Your task to perform on an android device: When is my next meeting? Image 0: 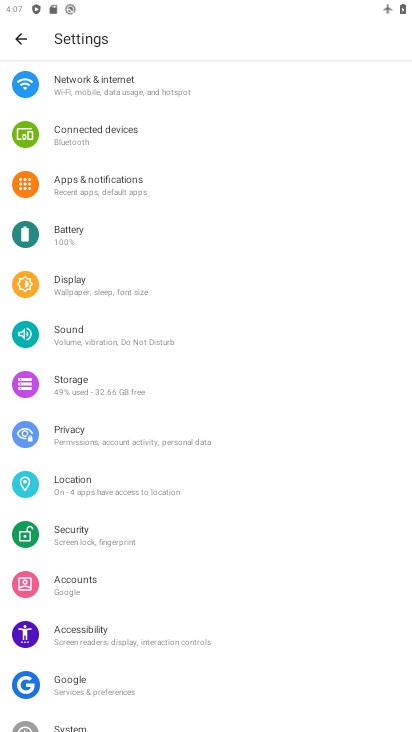
Step 0: press home button
Your task to perform on an android device: When is my next meeting? Image 1: 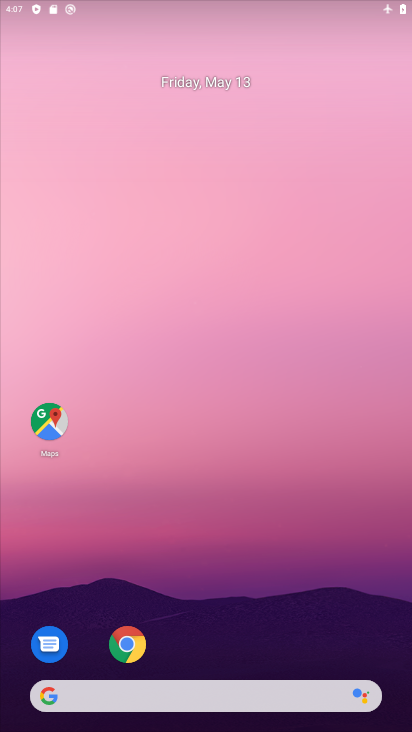
Step 1: drag from (210, 620) to (301, 121)
Your task to perform on an android device: When is my next meeting? Image 2: 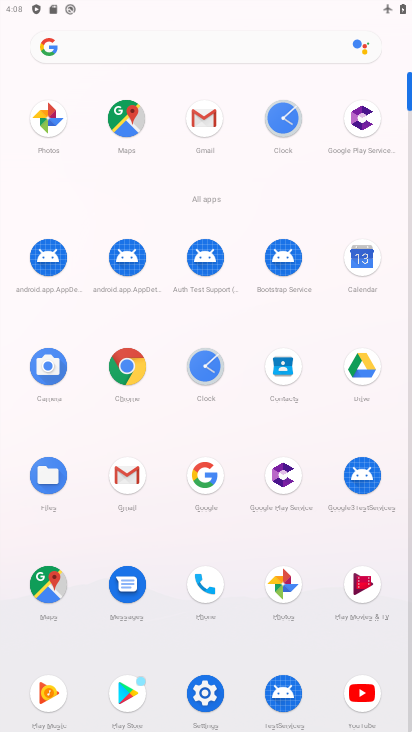
Step 2: click (360, 256)
Your task to perform on an android device: When is my next meeting? Image 3: 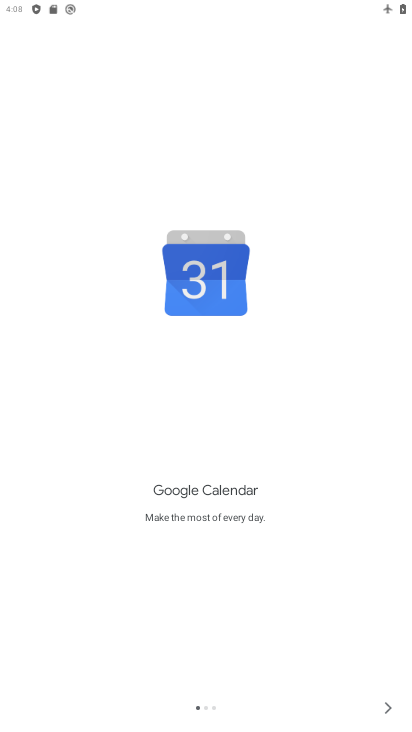
Step 3: click (380, 706)
Your task to perform on an android device: When is my next meeting? Image 4: 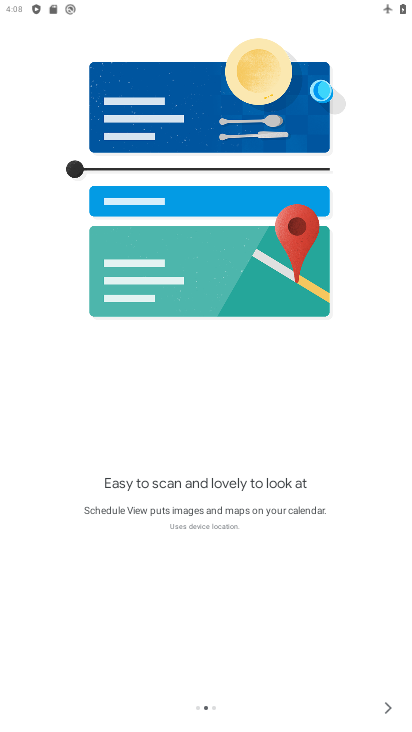
Step 4: click (380, 706)
Your task to perform on an android device: When is my next meeting? Image 5: 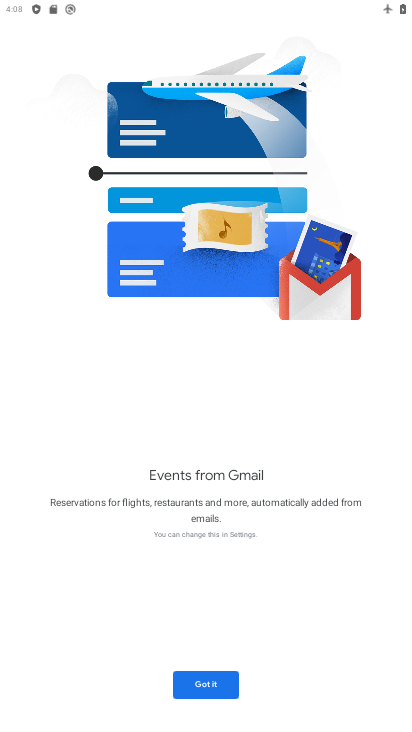
Step 5: click (209, 673)
Your task to perform on an android device: When is my next meeting? Image 6: 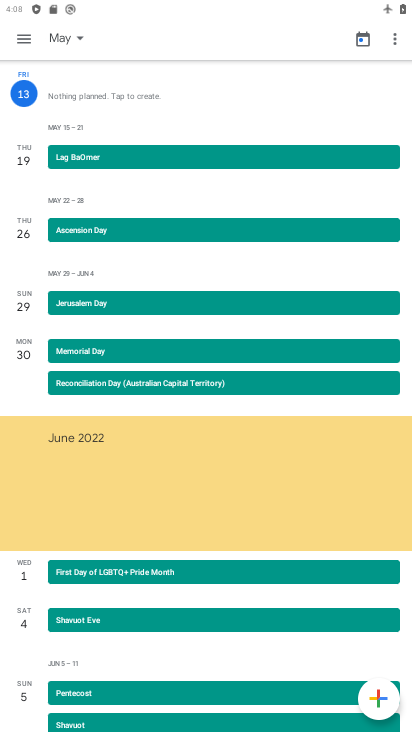
Step 6: drag from (139, 193) to (165, 512)
Your task to perform on an android device: When is my next meeting? Image 7: 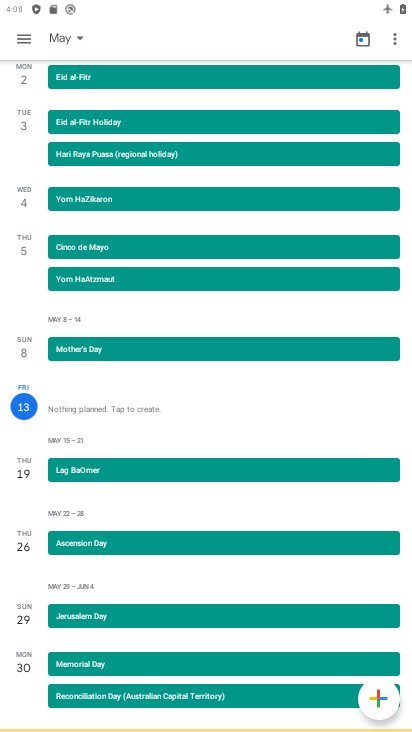
Step 7: click (25, 37)
Your task to perform on an android device: When is my next meeting? Image 8: 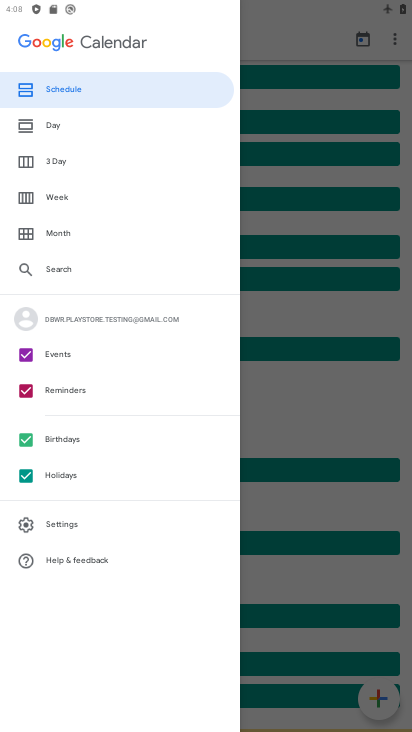
Step 8: click (126, 93)
Your task to perform on an android device: When is my next meeting? Image 9: 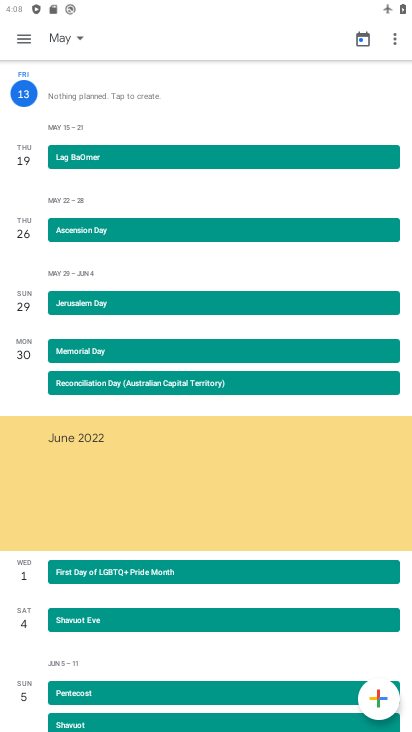
Step 9: task complete